Your task to perform on an android device: turn off translation in the chrome app Image 0: 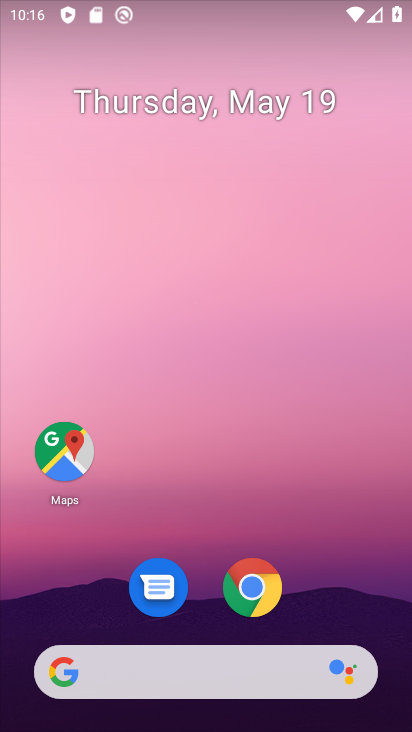
Step 0: drag from (356, 119) to (322, 136)
Your task to perform on an android device: turn off translation in the chrome app Image 1: 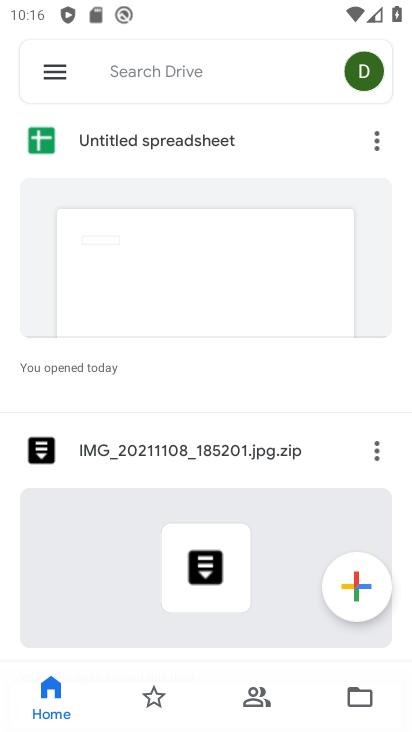
Step 1: press home button
Your task to perform on an android device: turn off translation in the chrome app Image 2: 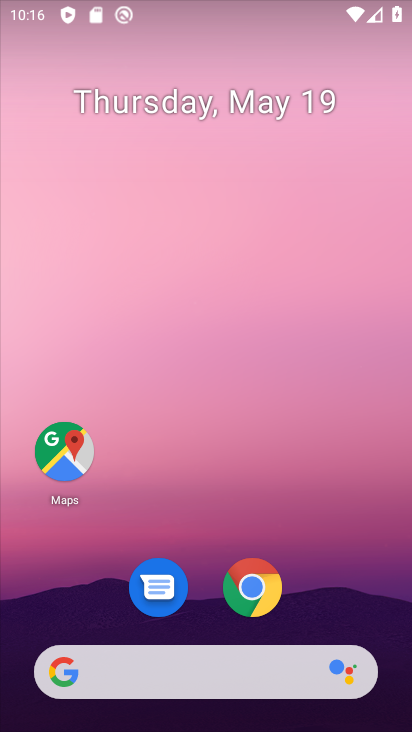
Step 2: drag from (353, 572) to (307, 156)
Your task to perform on an android device: turn off translation in the chrome app Image 3: 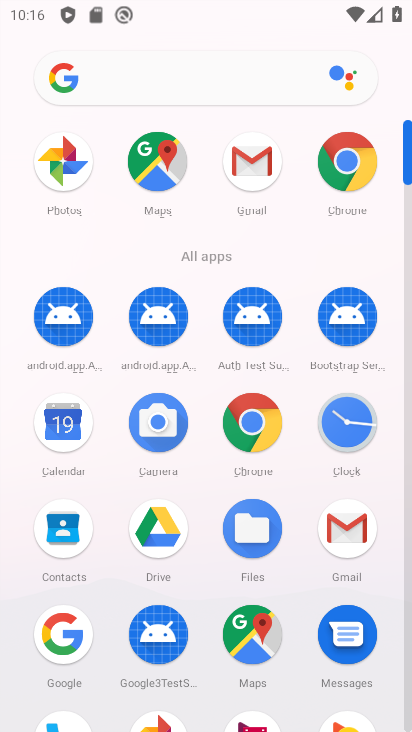
Step 3: click (263, 433)
Your task to perform on an android device: turn off translation in the chrome app Image 4: 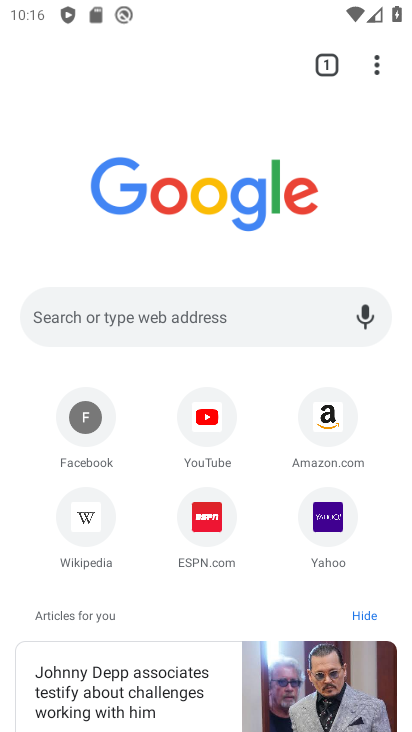
Step 4: drag from (378, 87) to (211, 545)
Your task to perform on an android device: turn off translation in the chrome app Image 5: 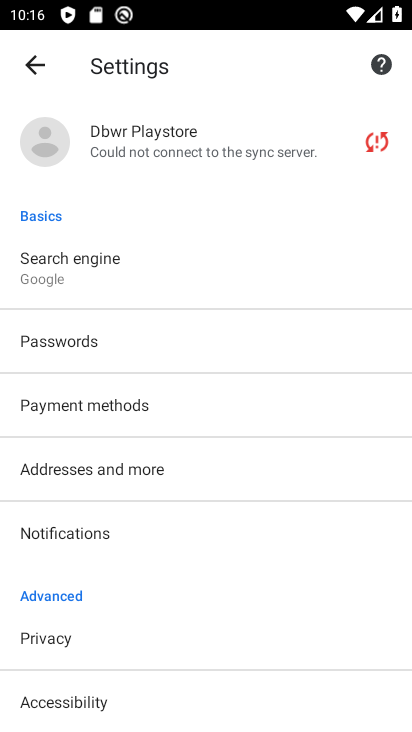
Step 5: drag from (200, 643) to (217, 301)
Your task to perform on an android device: turn off translation in the chrome app Image 6: 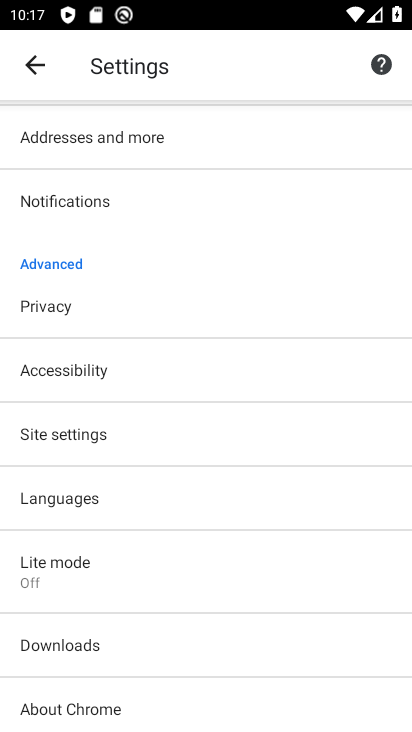
Step 6: click (107, 496)
Your task to perform on an android device: turn off translation in the chrome app Image 7: 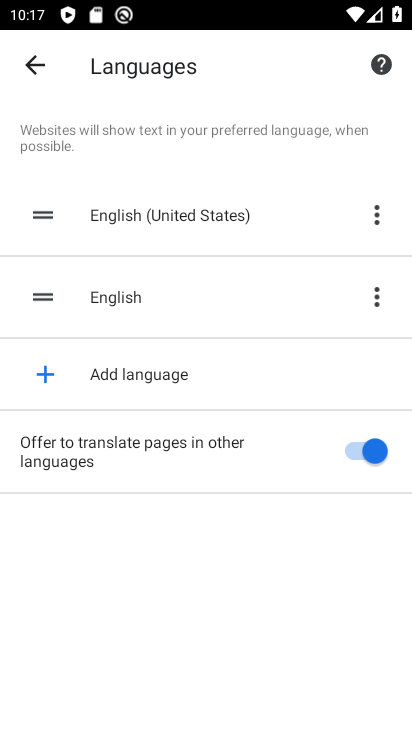
Step 7: click (363, 451)
Your task to perform on an android device: turn off translation in the chrome app Image 8: 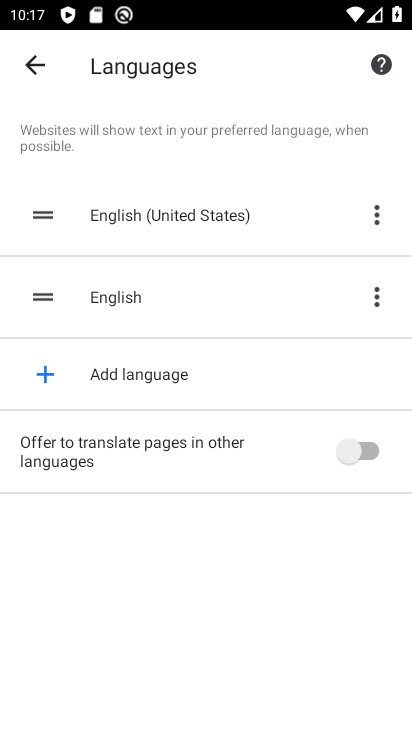
Step 8: task complete